Your task to perform on an android device: open wifi settings Image 0: 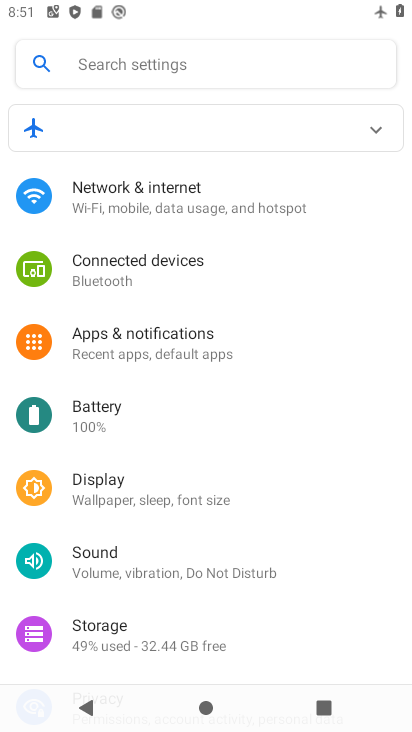
Step 0: click (242, 195)
Your task to perform on an android device: open wifi settings Image 1: 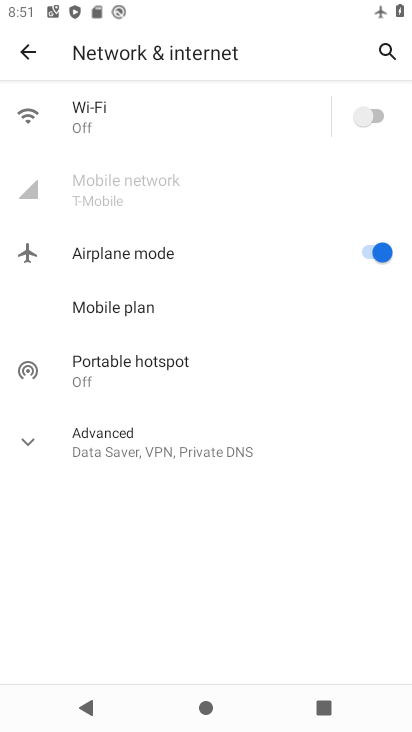
Step 1: click (178, 102)
Your task to perform on an android device: open wifi settings Image 2: 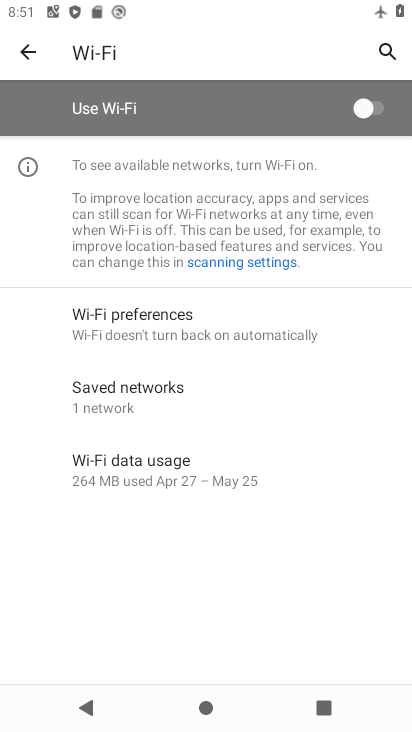
Step 2: task complete